Your task to perform on an android device: open a new tab in the chrome app Image 0: 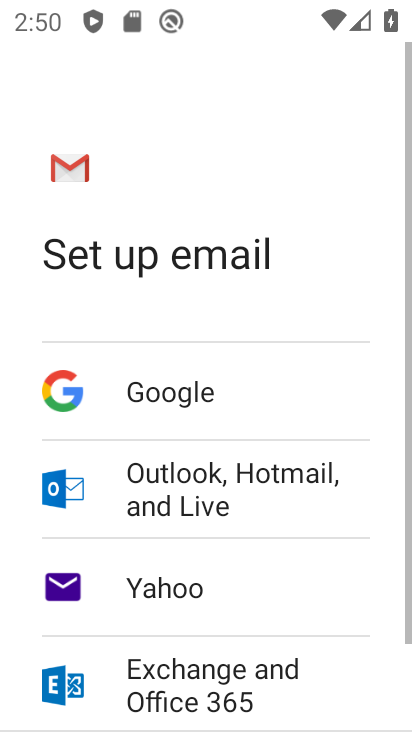
Step 0: press home button
Your task to perform on an android device: open a new tab in the chrome app Image 1: 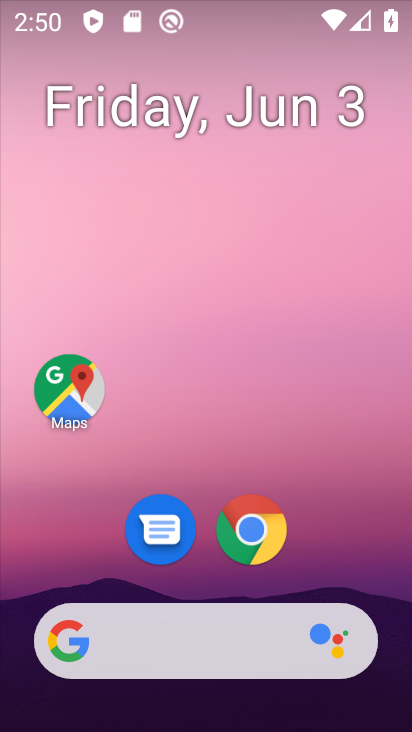
Step 1: click (261, 523)
Your task to perform on an android device: open a new tab in the chrome app Image 2: 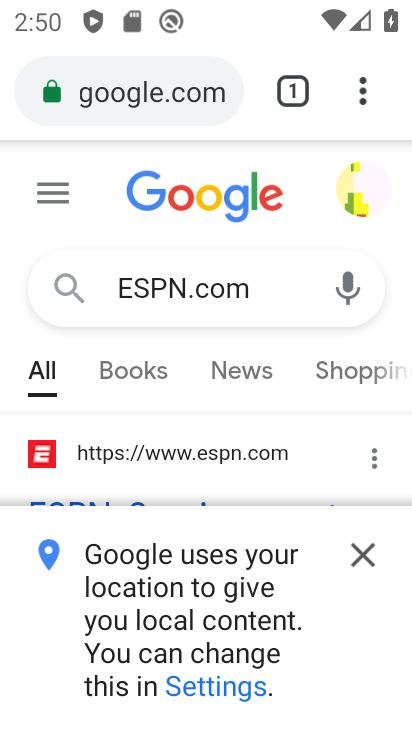
Step 2: click (363, 88)
Your task to perform on an android device: open a new tab in the chrome app Image 3: 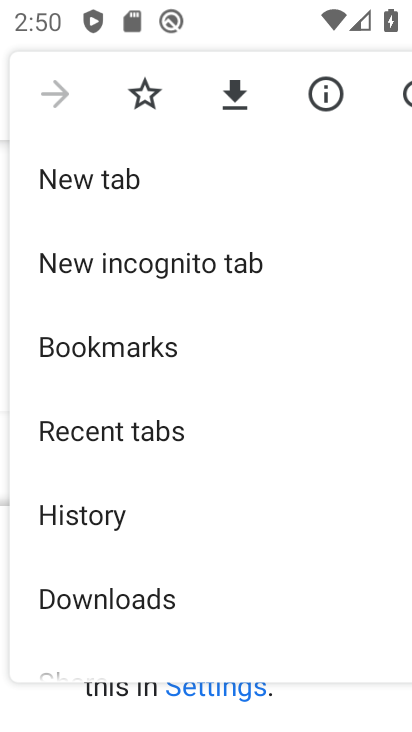
Step 3: click (406, 92)
Your task to perform on an android device: open a new tab in the chrome app Image 4: 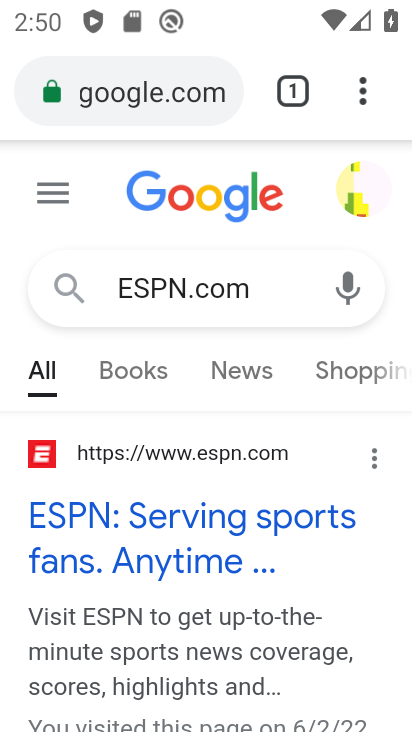
Step 4: click (362, 85)
Your task to perform on an android device: open a new tab in the chrome app Image 5: 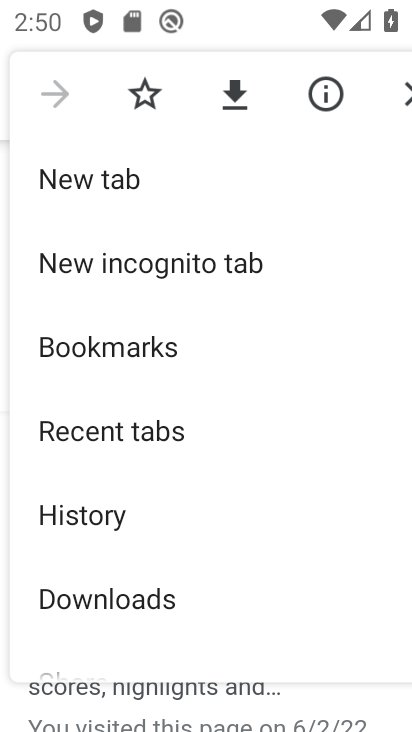
Step 5: click (120, 183)
Your task to perform on an android device: open a new tab in the chrome app Image 6: 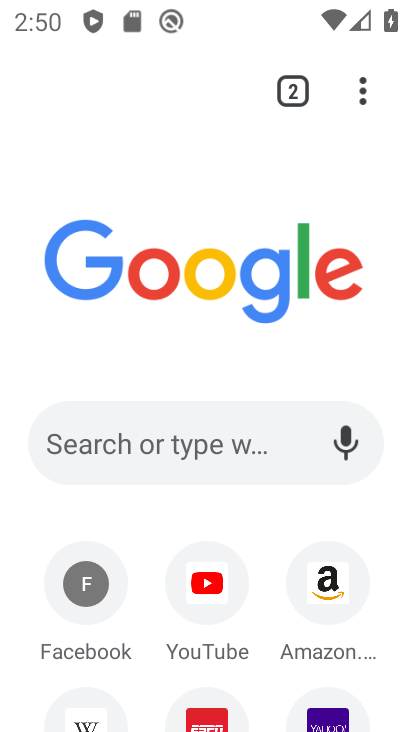
Step 6: task complete